Your task to perform on an android device: Search for Italian restaurants on Maps Image 0: 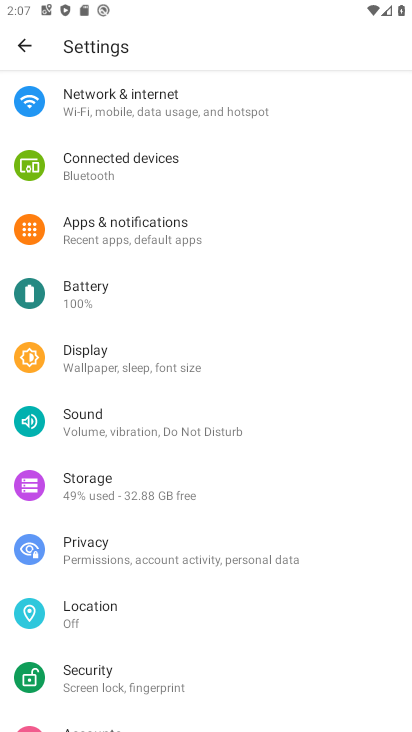
Step 0: press home button
Your task to perform on an android device: Search for Italian restaurants on Maps Image 1: 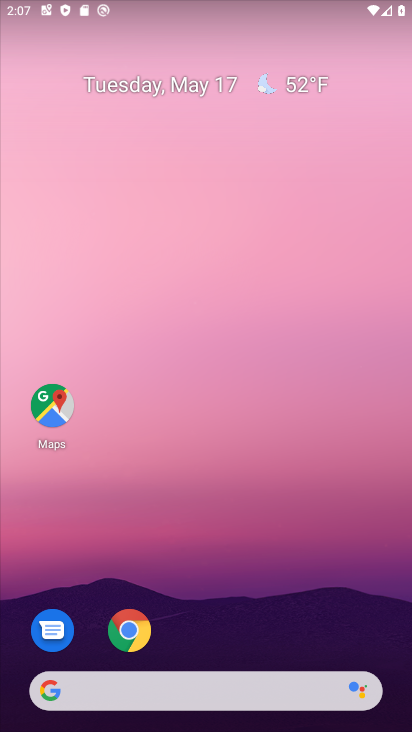
Step 1: click (54, 409)
Your task to perform on an android device: Search for Italian restaurants on Maps Image 2: 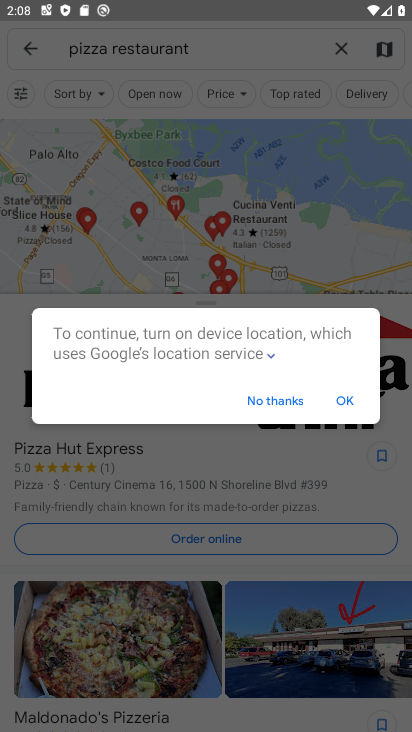
Step 2: click (291, 402)
Your task to perform on an android device: Search for Italian restaurants on Maps Image 3: 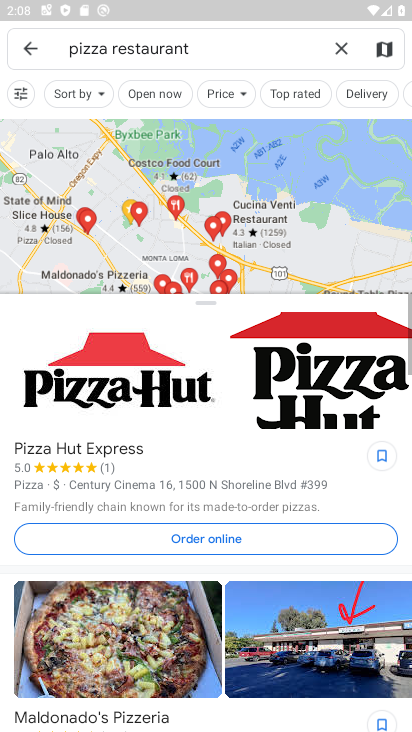
Step 3: click (345, 45)
Your task to perform on an android device: Search for Italian restaurants on Maps Image 4: 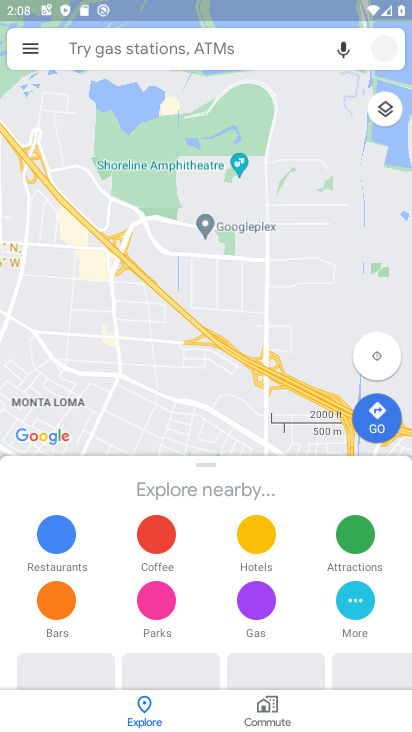
Step 4: drag from (177, 47) to (230, 47)
Your task to perform on an android device: Search for Italian restaurants on Maps Image 5: 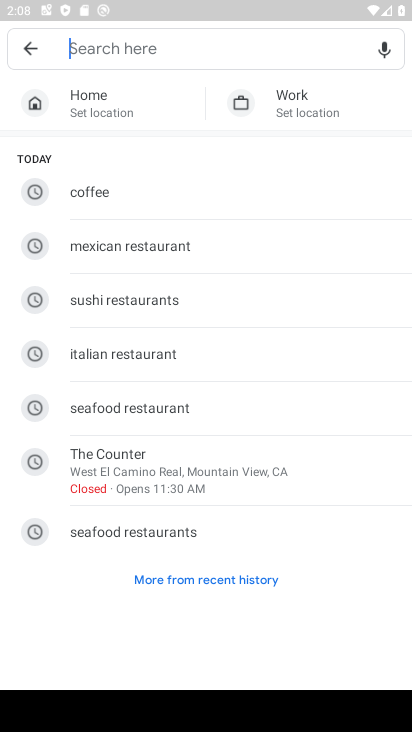
Step 5: click (102, 339)
Your task to perform on an android device: Search for Italian restaurants on Maps Image 6: 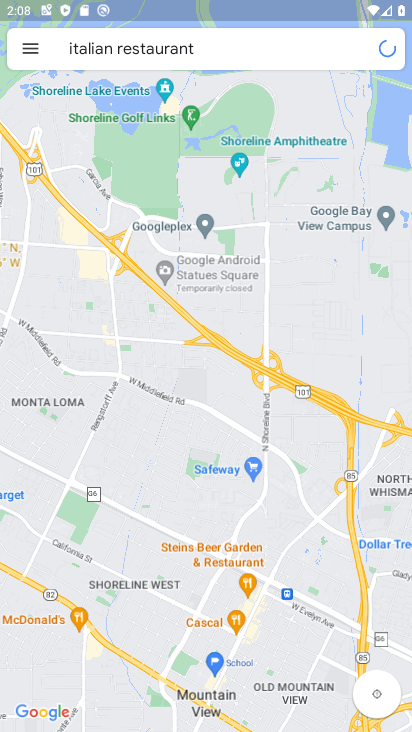
Step 6: task complete